Your task to perform on an android device: Set the phone to "Do not disturb". Image 0: 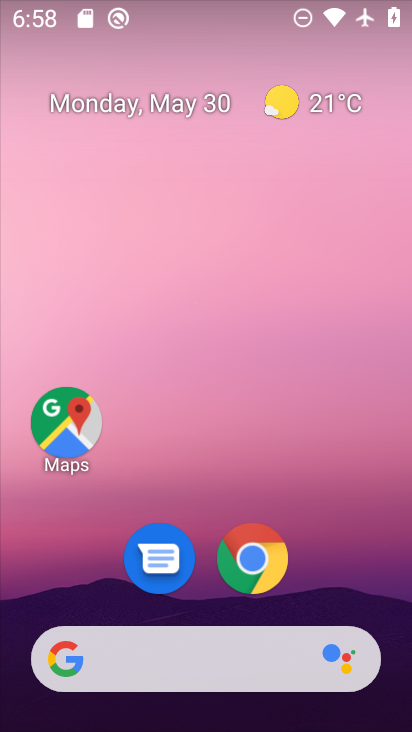
Step 0: drag from (305, 510) to (218, 108)
Your task to perform on an android device: Set the phone to "Do not disturb". Image 1: 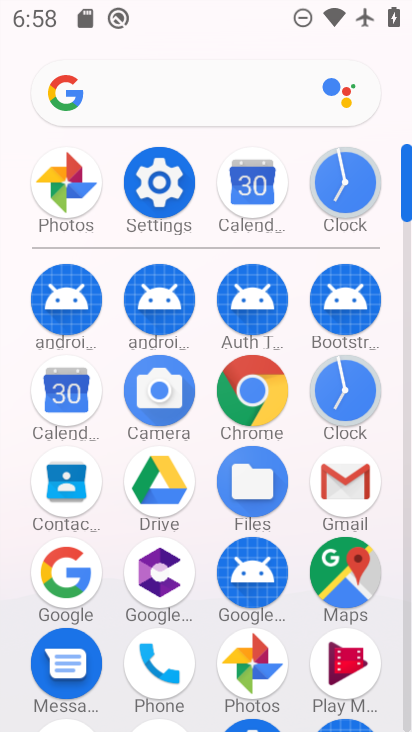
Step 1: click (154, 165)
Your task to perform on an android device: Set the phone to "Do not disturb". Image 2: 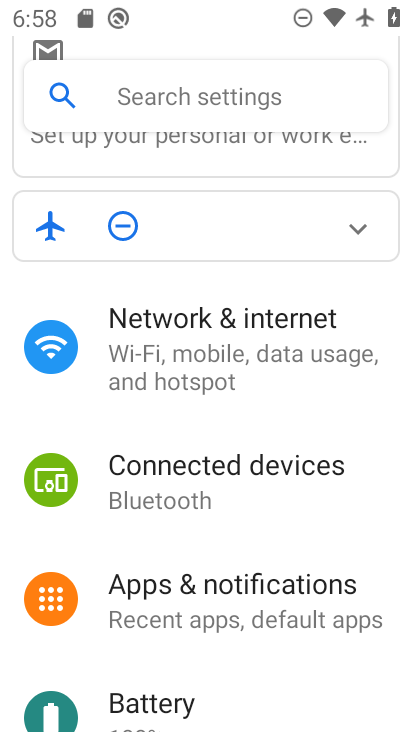
Step 2: drag from (233, 644) to (227, 314)
Your task to perform on an android device: Set the phone to "Do not disturb". Image 3: 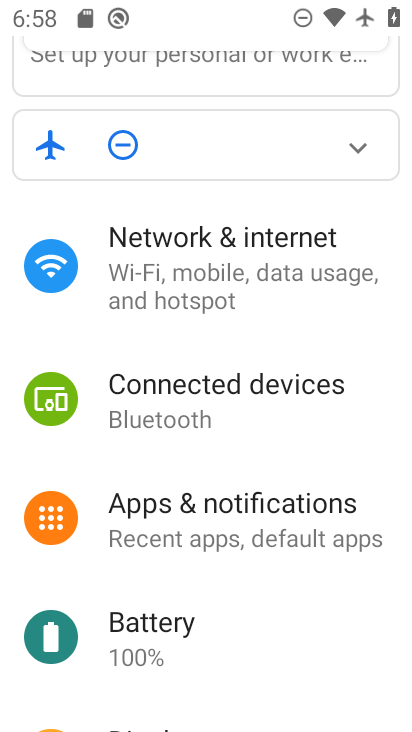
Step 3: drag from (243, 595) to (238, 265)
Your task to perform on an android device: Set the phone to "Do not disturb". Image 4: 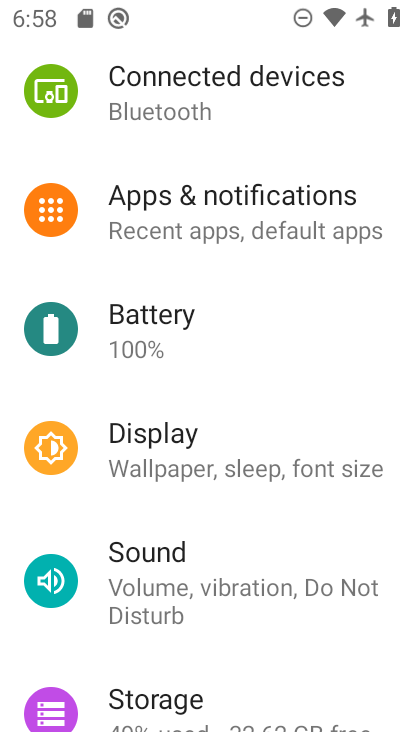
Step 4: click (185, 565)
Your task to perform on an android device: Set the phone to "Do not disturb". Image 5: 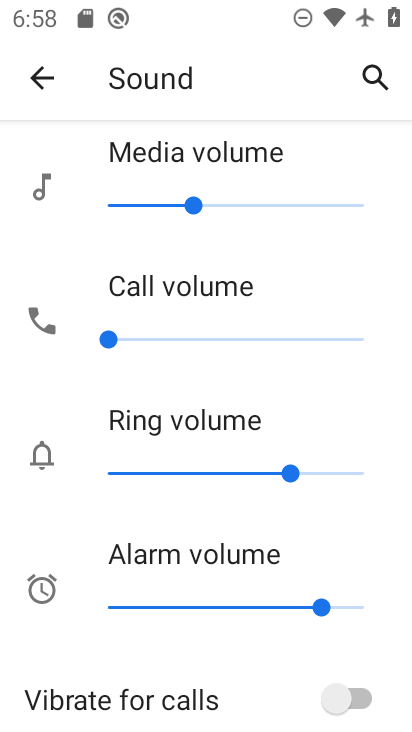
Step 5: drag from (255, 517) to (230, 151)
Your task to perform on an android device: Set the phone to "Do not disturb". Image 6: 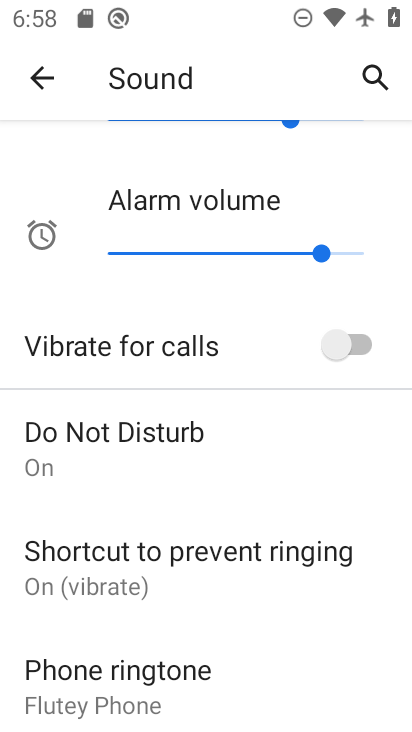
Step 6: click (117, 437)
Your task to perform on an android device: Set the phone to "Do not disturb". Image 7: 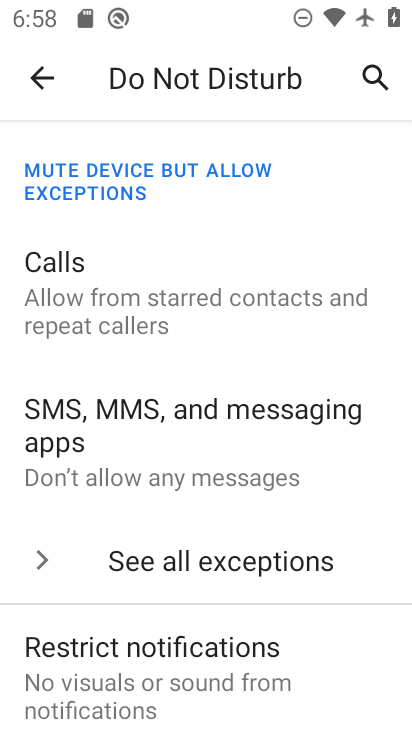
Step 7: task complete